Your task to perform on an android device: turn on sleep mode Image 0: 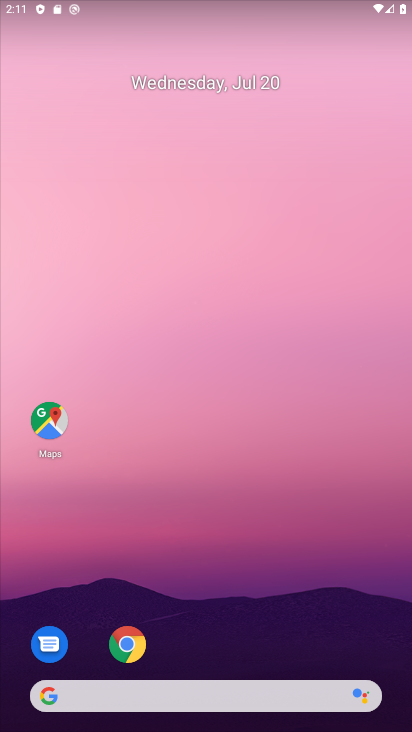
Step 0: drag from (310, 595) to (268, 148)
Your task to perform on an android device: turn on sleep mode Image 1: 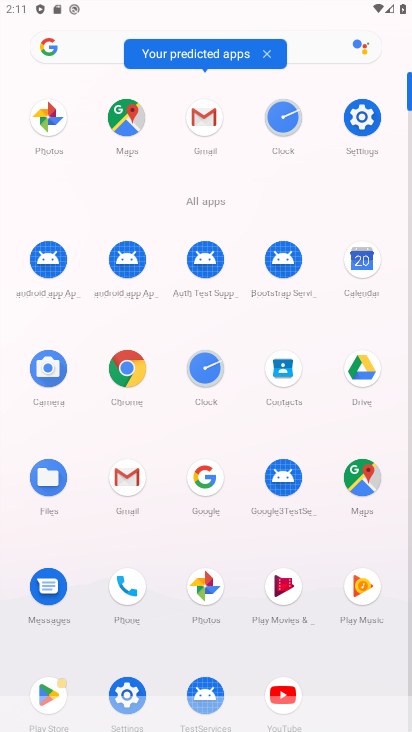
Step 1: click (360, 121)
Your task to perform on an android device: turn on sleep mode Image 2: 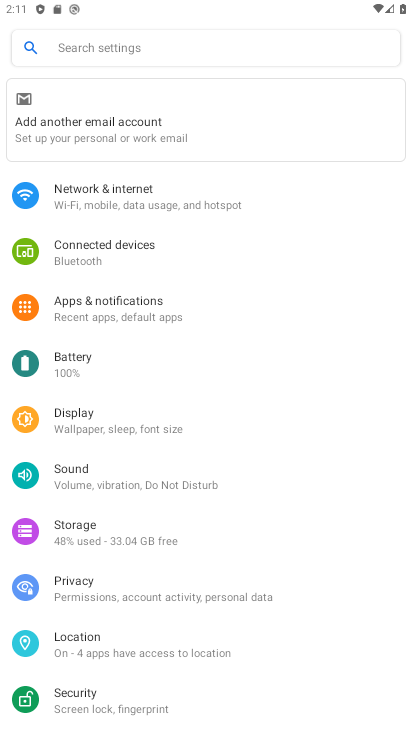
Step 2: click (132, 421)
Your task to perform on an android device: turn on sleep mode Image 3: 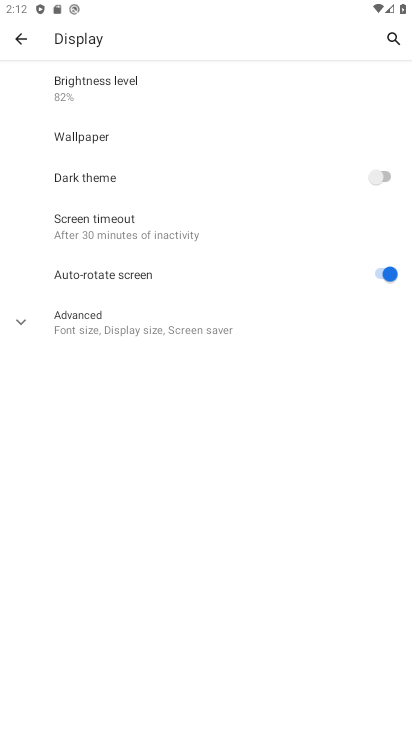
Step 3: click (100, 320)
Your task to perform on an android device: turn on sleep mode Image 4: 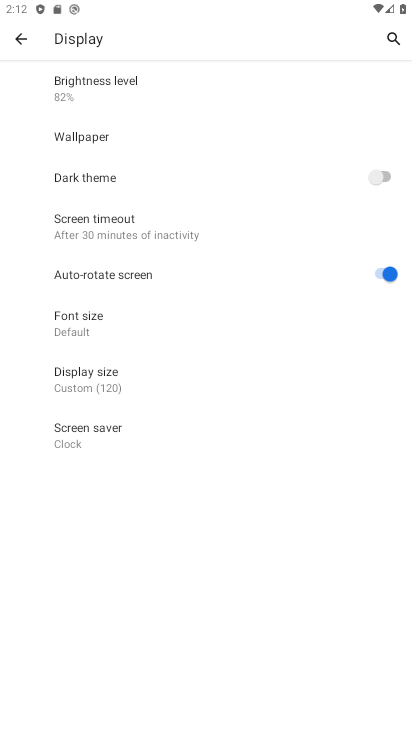
Step 4: task complete